Your task to perform on an android device: snooze an email in the gmail app Image 0: 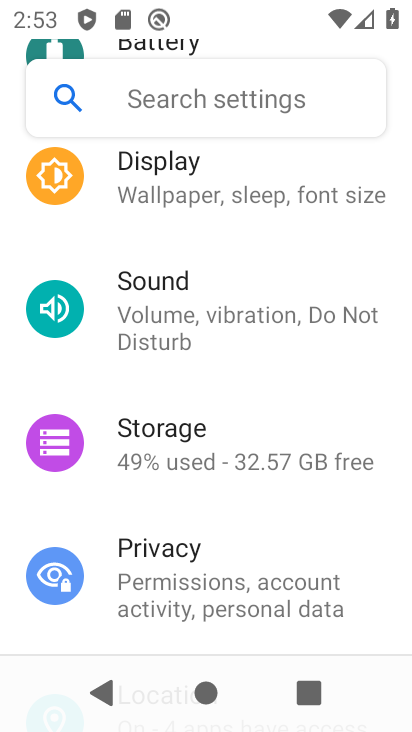
Step 0: press home button
Your task to perform on an android device: snooze an email in the gmail app Image 1: 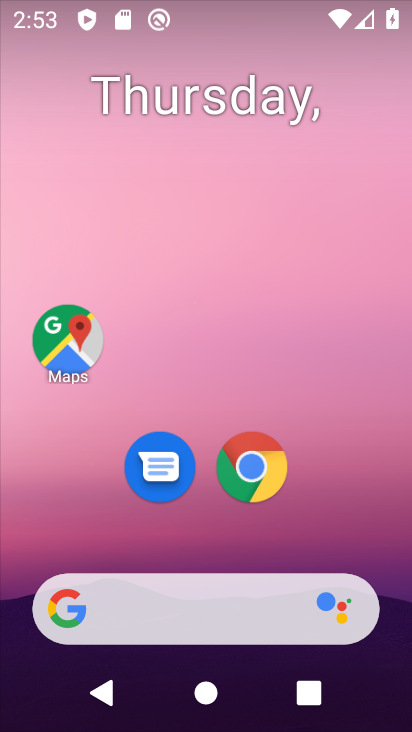
Step 1: drag from (177, 605) to (270, 92)
Your task to perform on an android device: snooze an email in the gmail app Image 2: 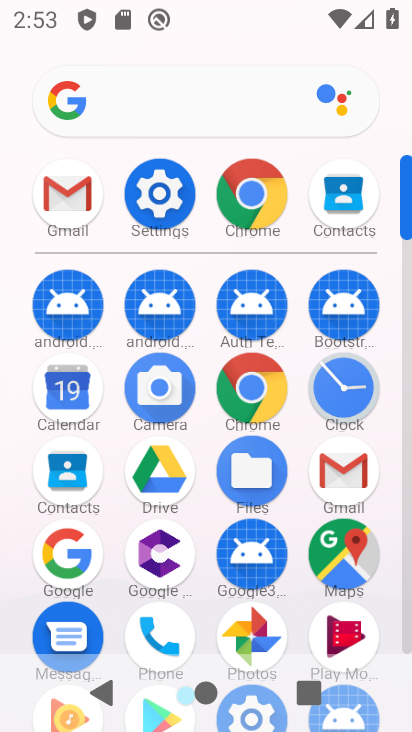
Step 2: click (74, 206)
Your task to perform on an android device: snooze an email in the gmail app Image 3: 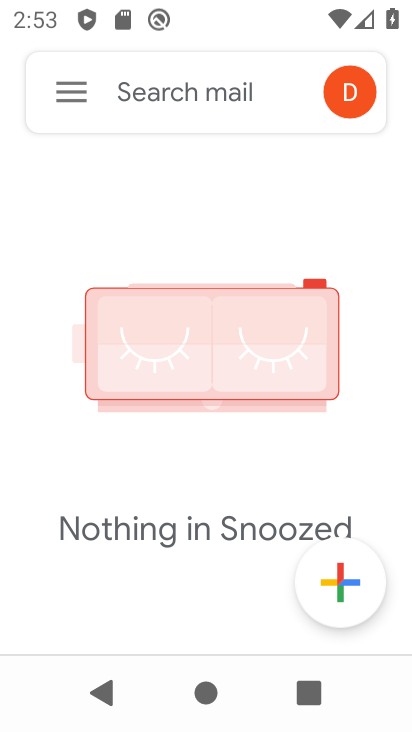
Step 3: click (77, 93)
Your task to perform on an android device: snooze an email in the gmail app Image 4: 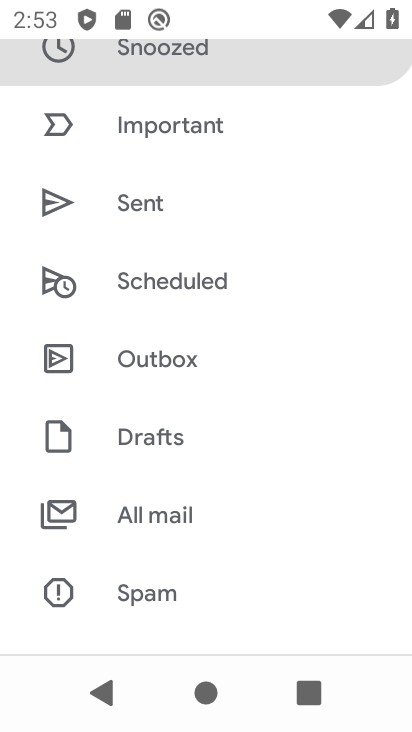
Step 4: click (147, 507)
Your task to perform on an android device: snooze an email in the gmail app Image 5: 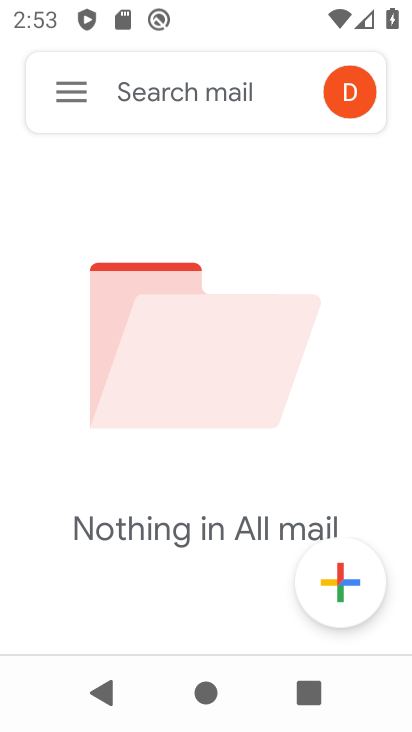
Step 5: task complete